Your task to perform on an android device: Open Wikipedia Image 0: 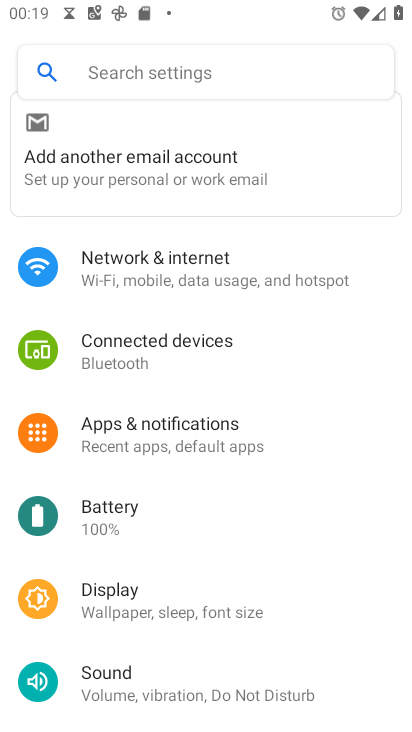
Step 0: press home button
Your task to perform on an android device: Open Wikipedia Image 1: 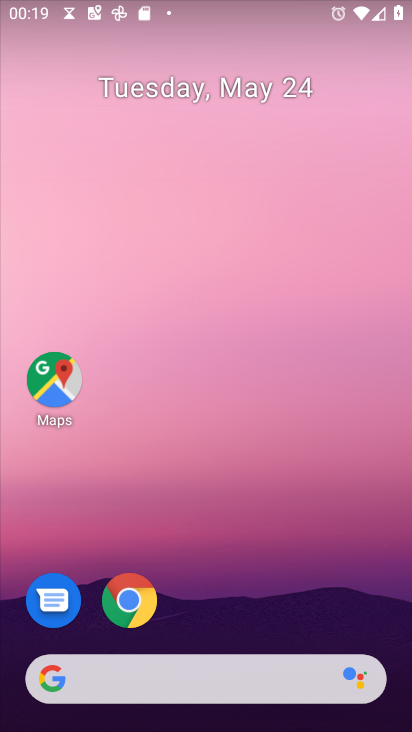
Step 1: click (132, 600)
Your task to perform on an android device: Open Wikipedia Image 2: 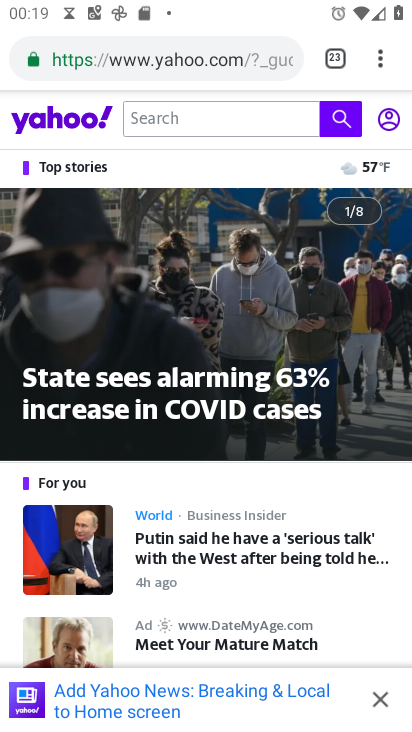
Step 2: click (379, 63)
Your task to perform on an android device: Open Wikipedia Image 3: 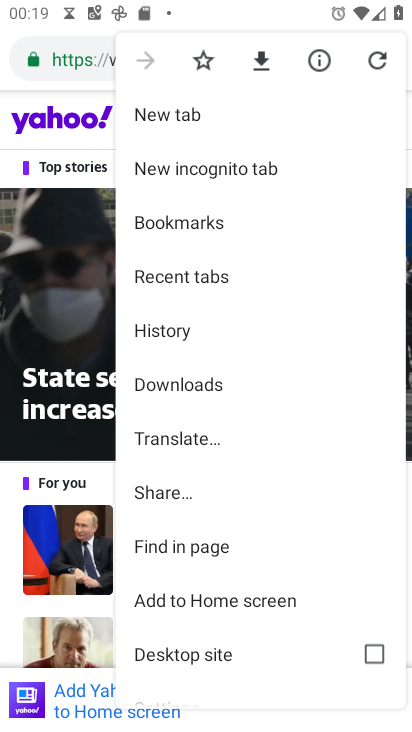
Step 3: click (181, 113)
Your task to perform on an android device: Open Wikipedia Image 4: 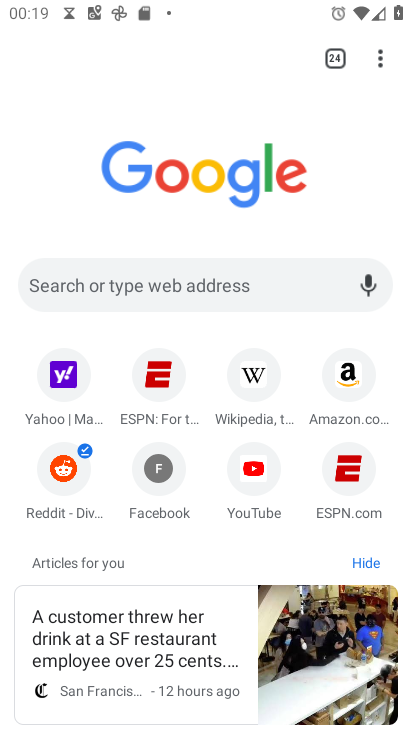
Step 4: click (262, 376)
Your task to perform on an android device: Open Wikipedia Image 5: 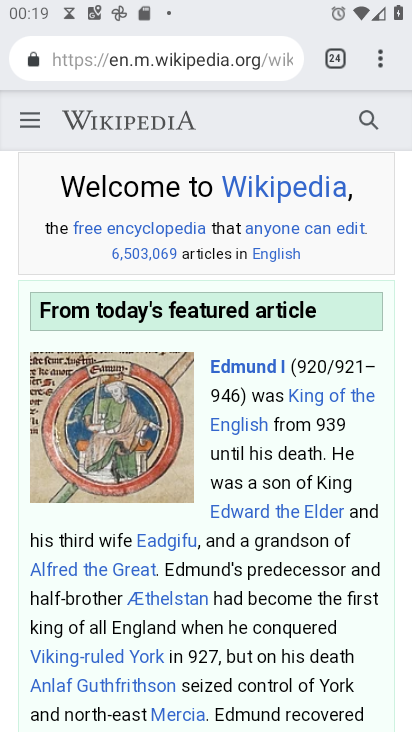
Step 5: task complete